Your task to perform on an android device: Show me popular videos on Youtube Image 0: 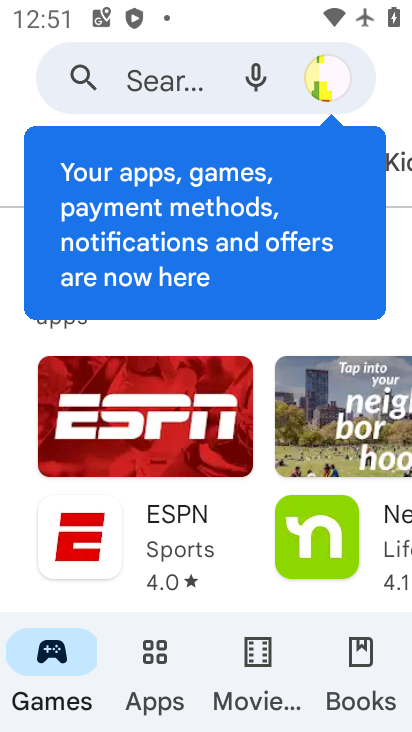
Step 0: press back button
Your task to perform on an android device: Show me popular videos on Youtube Image 1: 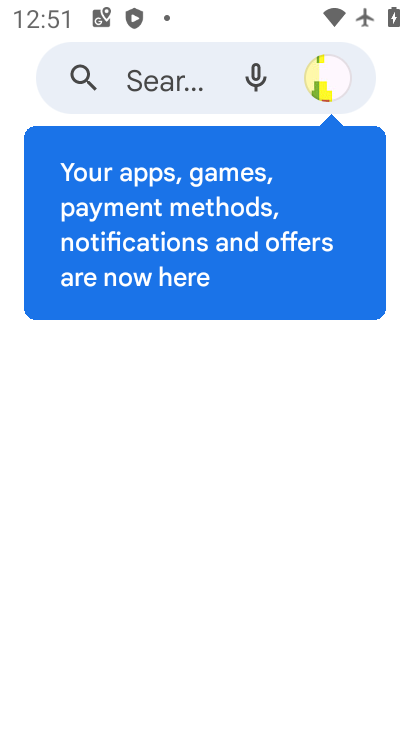
Step 1: press back button
Your task to perform on an android device: Show me popular videos on Youtube Image 2: 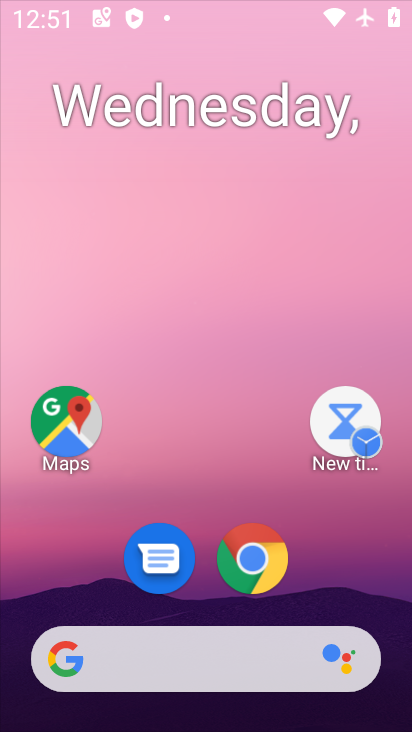
Step 2: press back button
Your task to perform on an android device: Show me popular videos on Youtube Image 3: 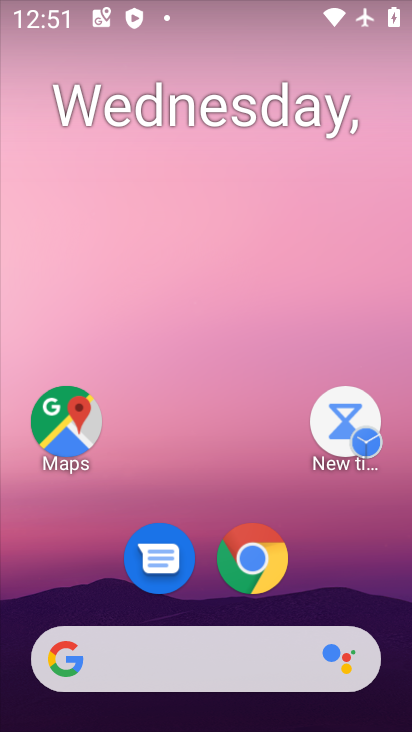
Step 3: drag from (212, 700) to (147, 49)
Your task to perform on an android device: Show me popular videos on Youtube Image 4: 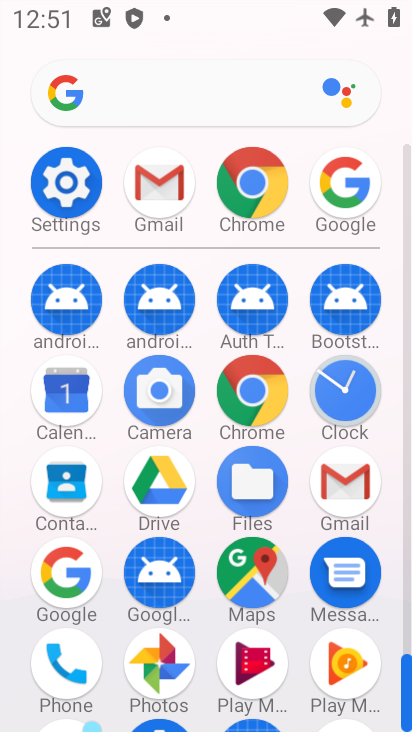
Step 4: drag from (282, 504) to (266, 226)
Your task to perform on an android device: Show me popular videos on Youtube Image 5: 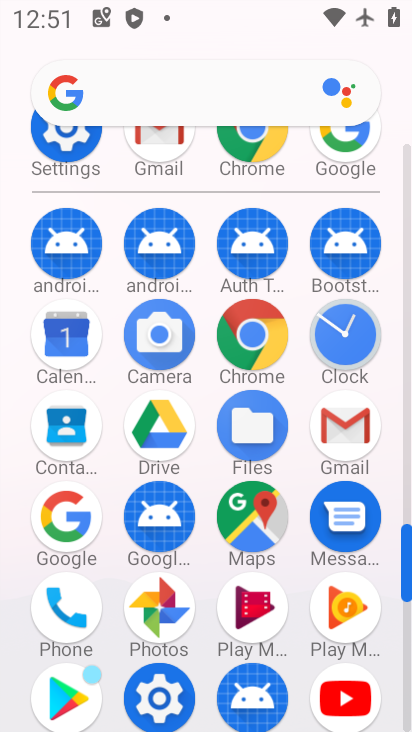
Step 5: drag from (286, 499) to (264, 333)
Your task to perform on an android device: Show me popular videos on Youtube Image 6: 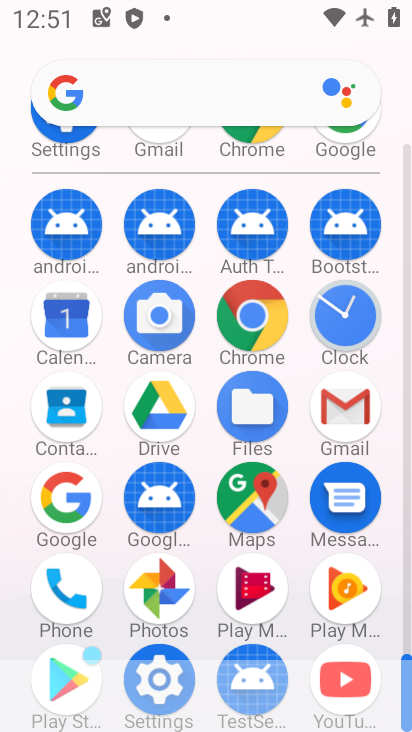
Step 6: drag from (302, 547) to (277, 258)
Your task to perform on an android device: Show me popular videos on Youtube Image 7: 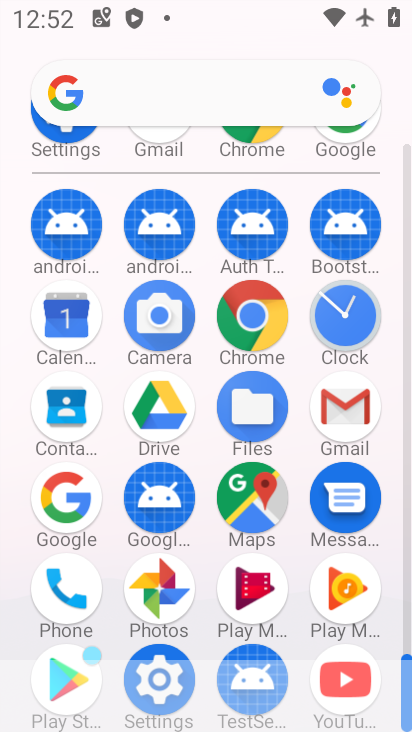
Step 7: drag from (295, 493) to (259, 239)
Your task to perform on an android device: Show me popular videos on Youtube Image 8: 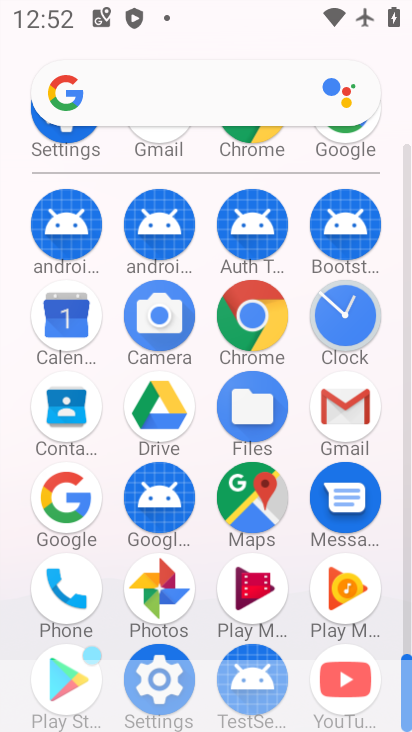
Step 8: drag from (282, 541) to (270, 292)
Your task to perform on an android device: Show me popular videos on Youtube Image 9: 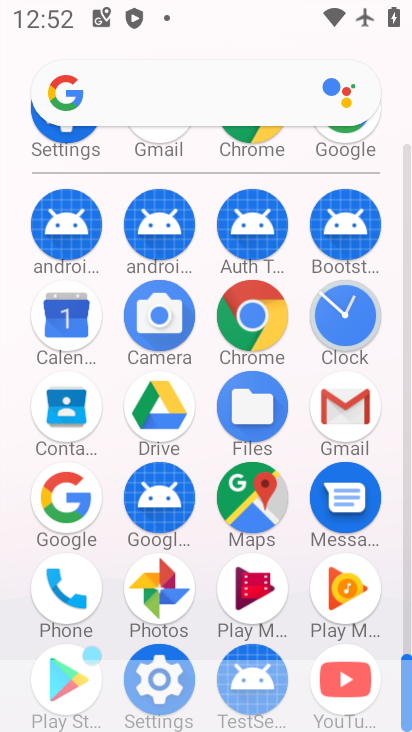
Step 9: click (347, 655)
Your task to perform on an android device: Show me popular videos on Youtube Image 10: 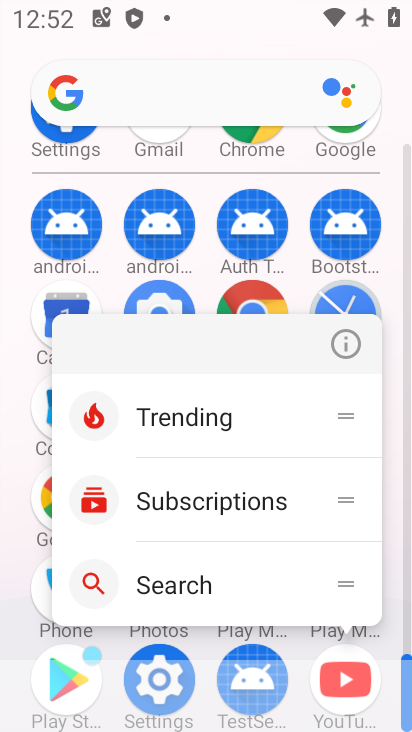
Step 10: click (341, 673)
Your task to perform on an android device: Show me popular videos on Youtube Image 11: 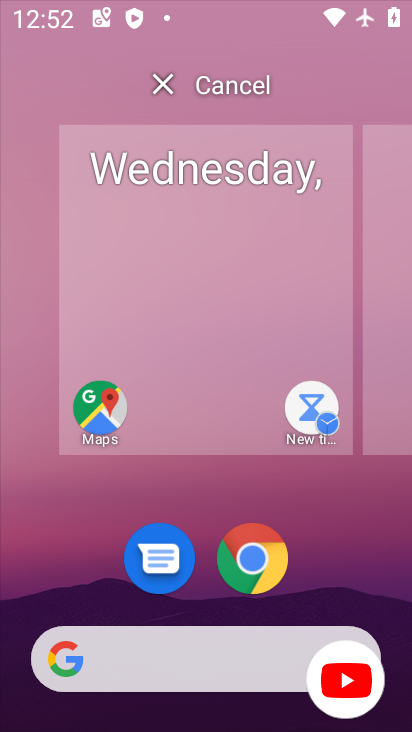
Step 11: click (341, 662)
Your task to perform on an android device: Show me popular videos on Youtube Image 12: 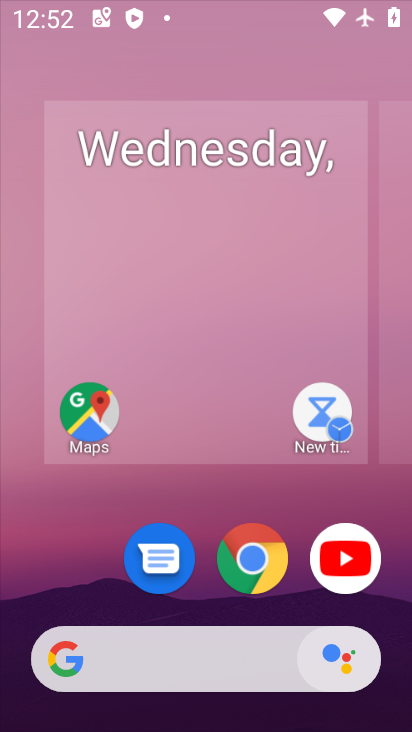
Step 12: click (338, 664)
Your task to perform on an android device: Show me popular videos on Youtube Image 13: 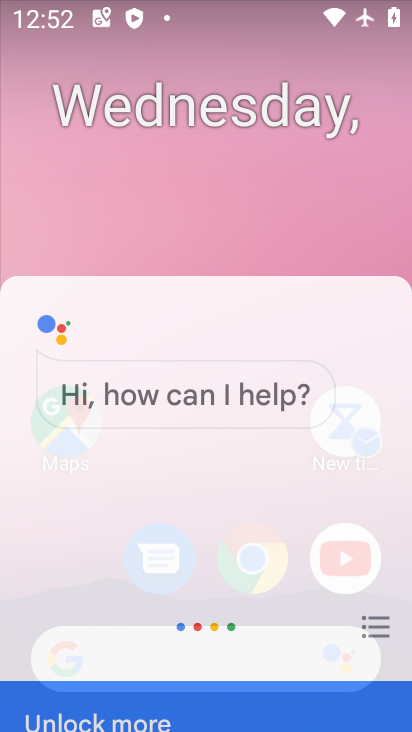
Step 13: click (340, 554)
Your task to perform on an android device: Show me popular videos on Youtube Image 14: 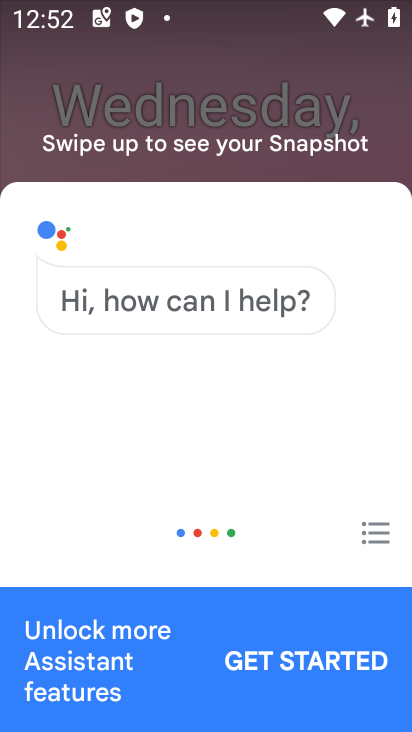
Step 14: click (344, 565)
Your task to perform on an android device: Show me popular videos on Youtube Image 15: 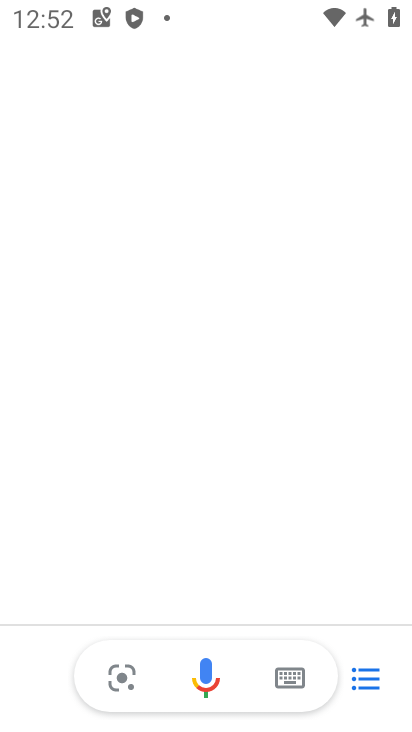
Step 15: task complete